Your task to perform on an android device: manage bookmarks in the chrome app Image 0: 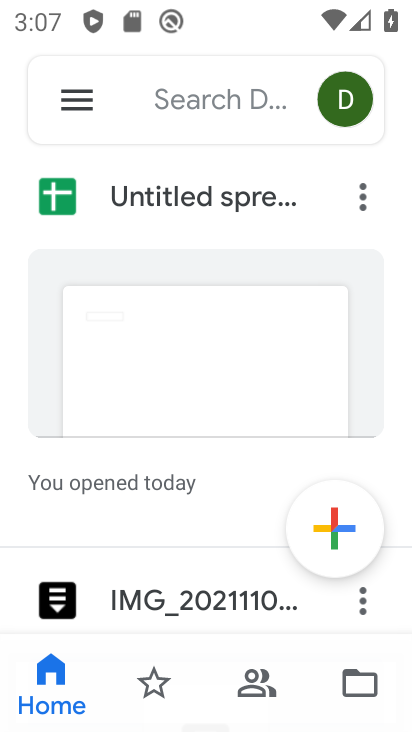
Step 0: press home button
Your task to perform on an android device: manage bookmarks in the chrome app Image 1: 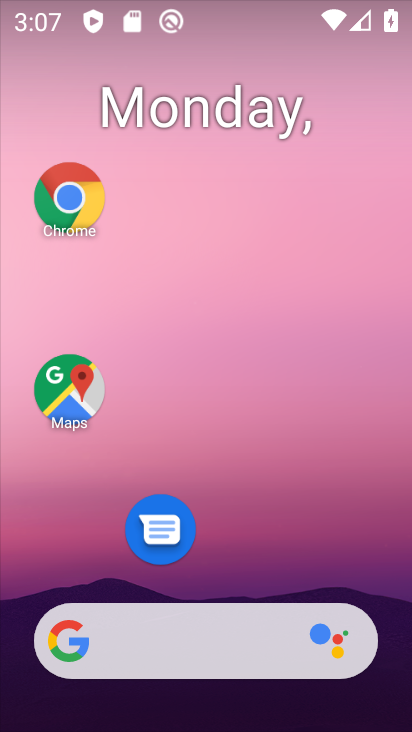
Step 1: drag from (280, 673) to (303, 104)
Your task to perform on an android device: manage bookmarks in the chrome app Image 2: 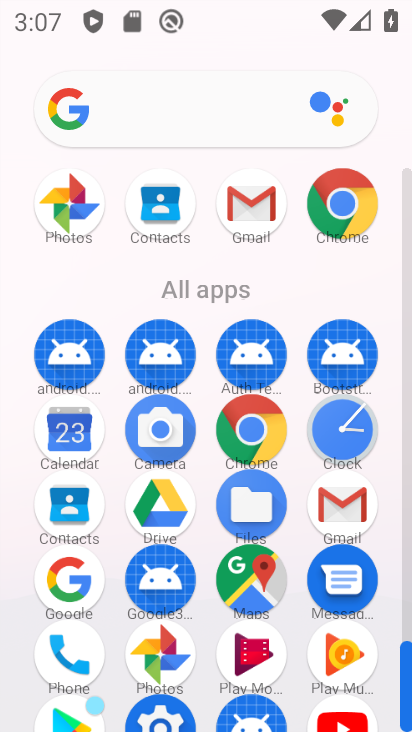
Step 2: click (360, 214)
Your task to perform on an android device: manage bookmarks in the chrome app Image 3: 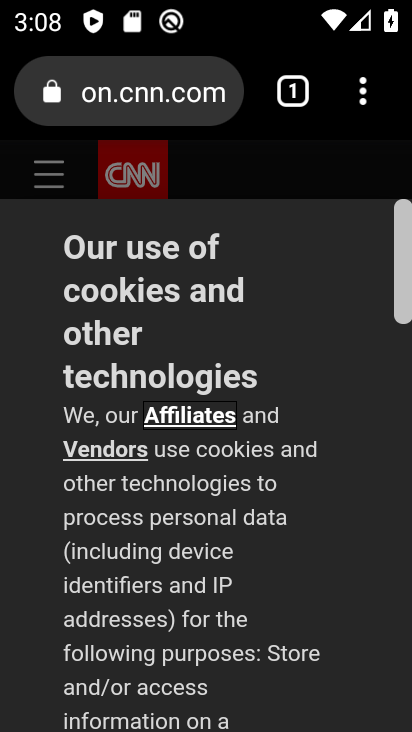
Step 3: click (376, 98)
Your task to perform on an android device: manage bookmarks in the chrome app Image 4: 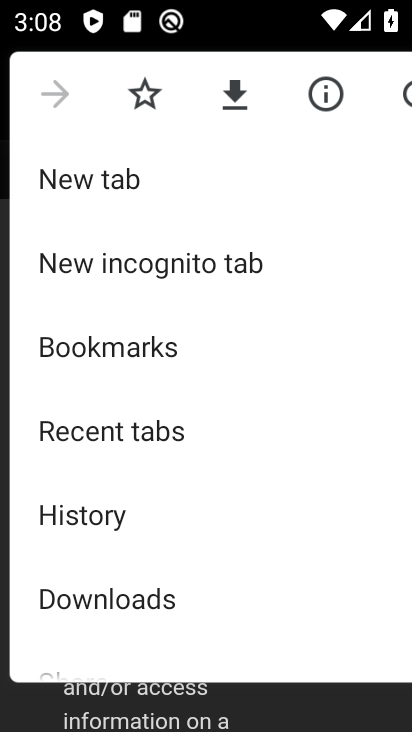
Step 4: click (140, 363)
Your task to perform on an android device: manage bookmarks in the chrome app Image 5: 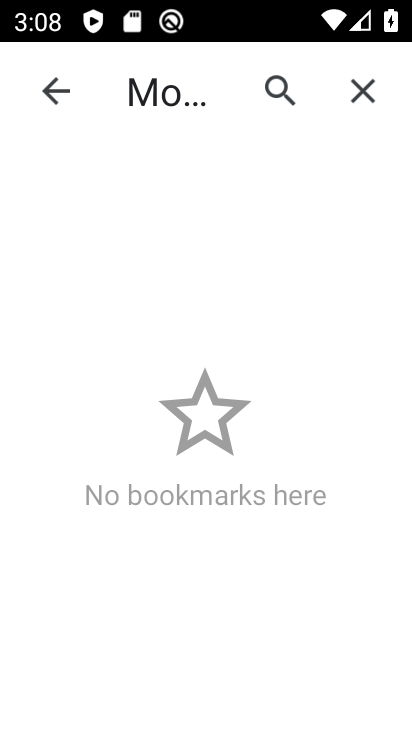
Step 5: task complete